Your task to perform on an android device: Go to battery settings Image 0: 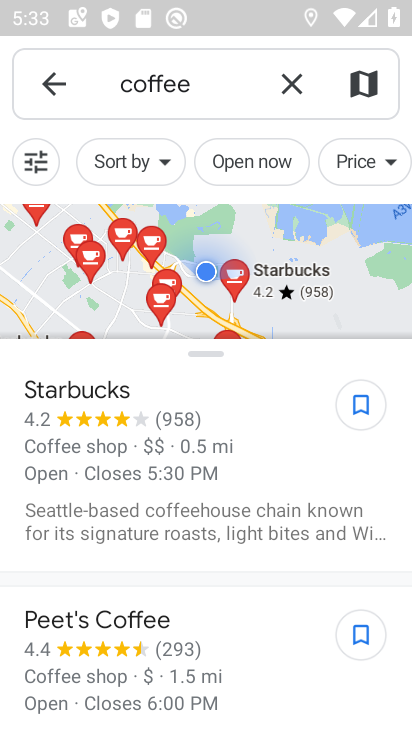
Step 0: press home button
Your task to perform on an android device: Go to battery settings Image 1: 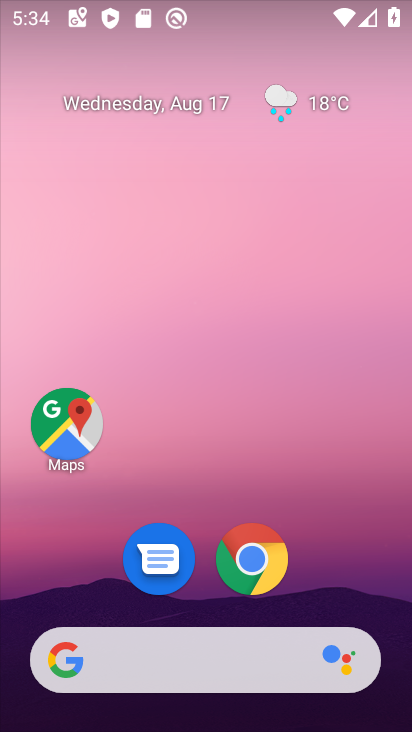
Step 1: drag from (195, 650) to (86, 2)
Your task to perform on an android device: Go to battery settings Image 2: 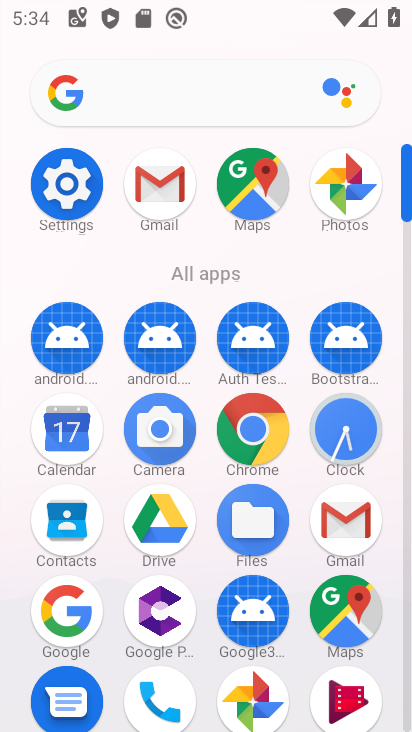
Step 2: click (74, 207)
Your task to perform on an android device: Go to battery settings Image 3: 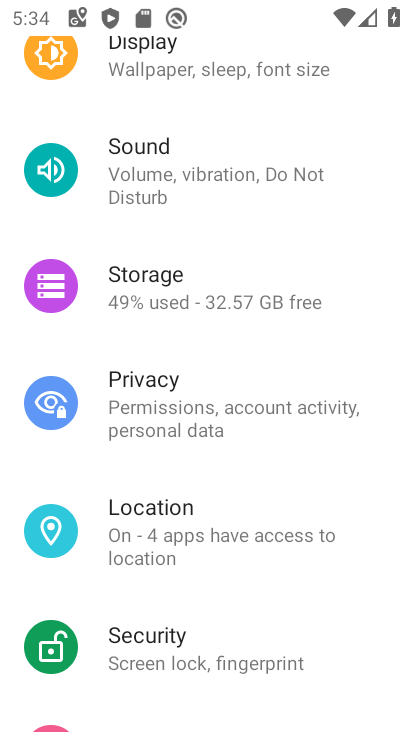
Step 3: drag from (163, 156) to (222, 726)
Your task to perform on an android device: Go to battery settings Image 4: 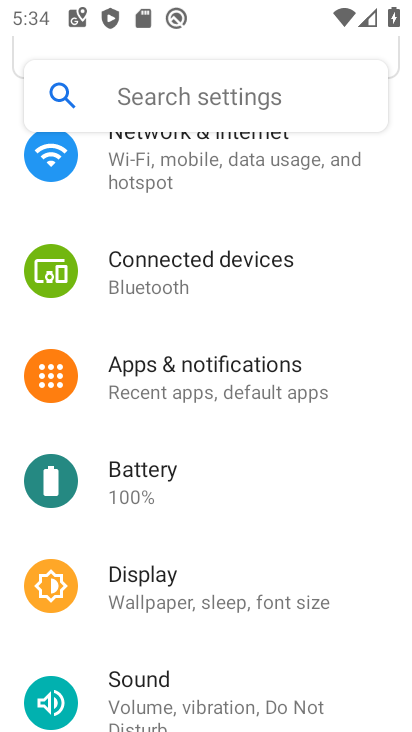
Step 4: click (157, 493)
Your task to perform on an android device: Go to battery settings Image 5: 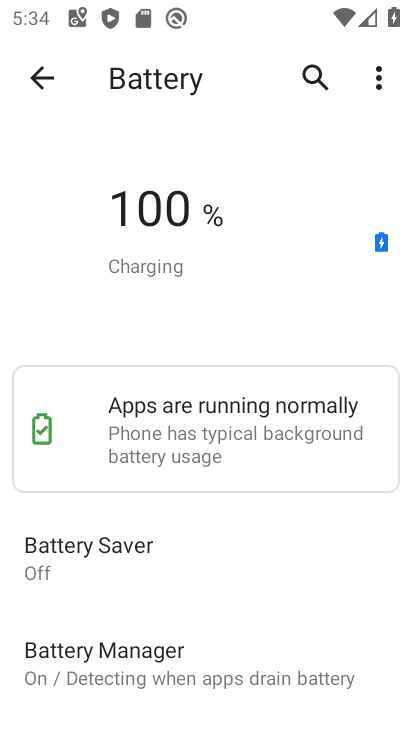
Step 5: task complete